Your task to perform on an android device: uninstall "Airtel Thanks" Image 0: 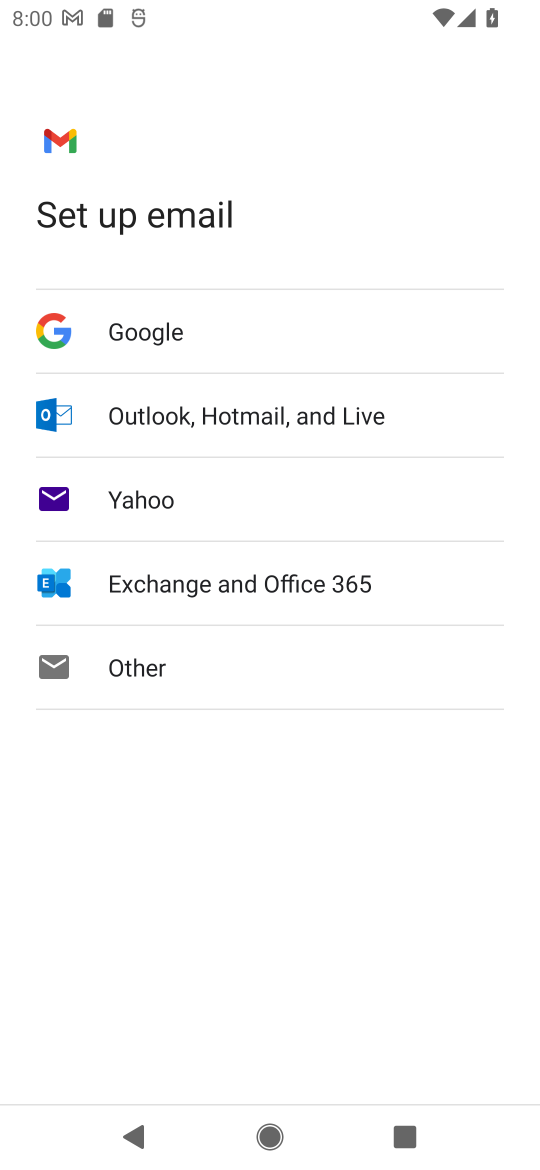
Step 0: press home button
Your task to perform on an android device: uninstall "Airtel Thanks" Image 1: 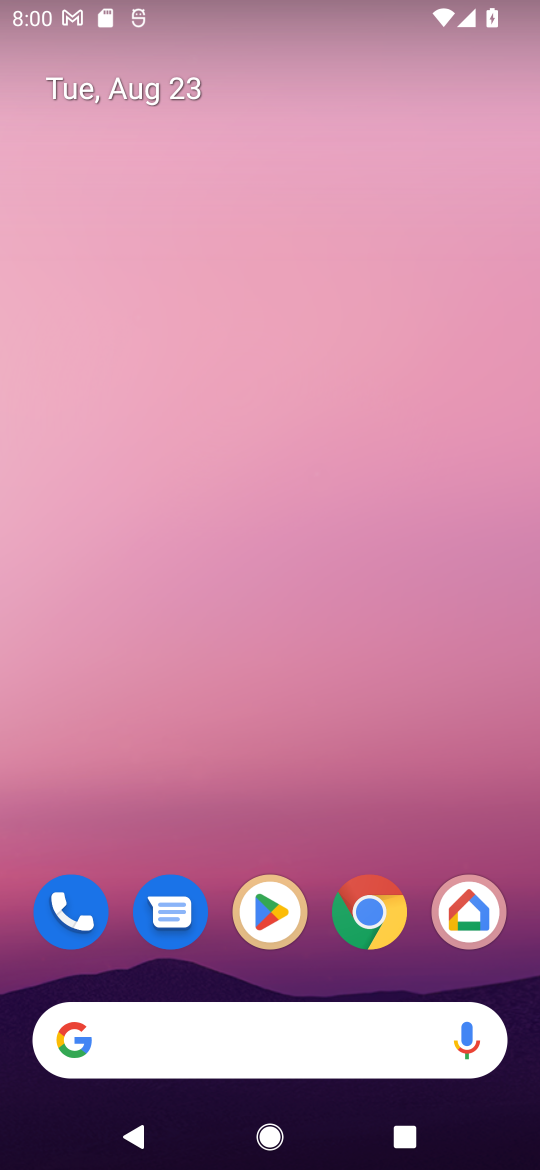
Step 1: click (265, 914)
Your task to perform on an android device: uninstall "Airtel Thanks" Image 2: 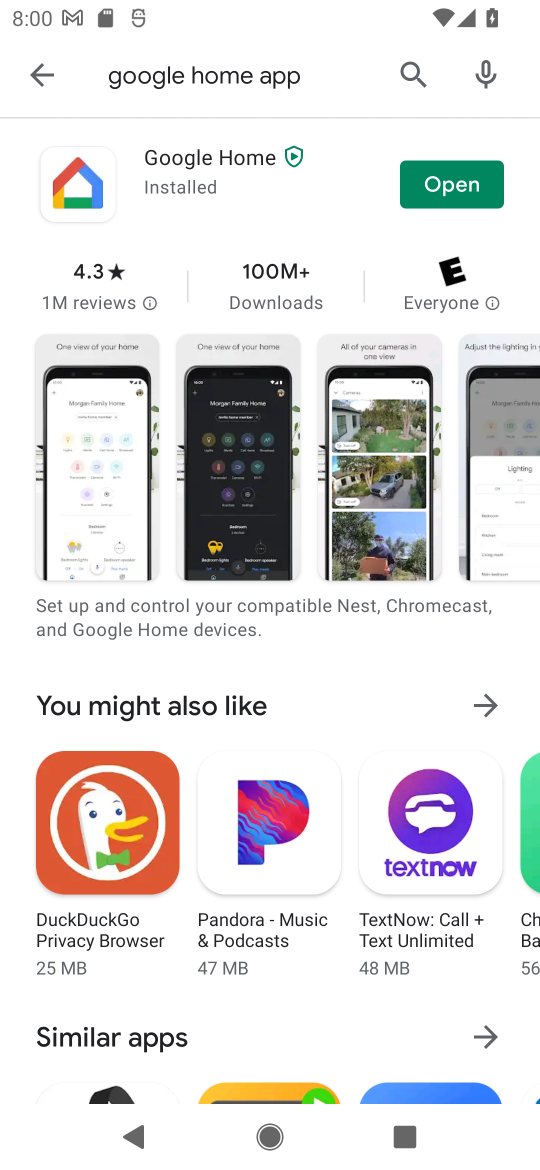
Step 2: click (412, 69)
Your task to perform on an android device: uninstall "Airtel Thanks" Image 3: 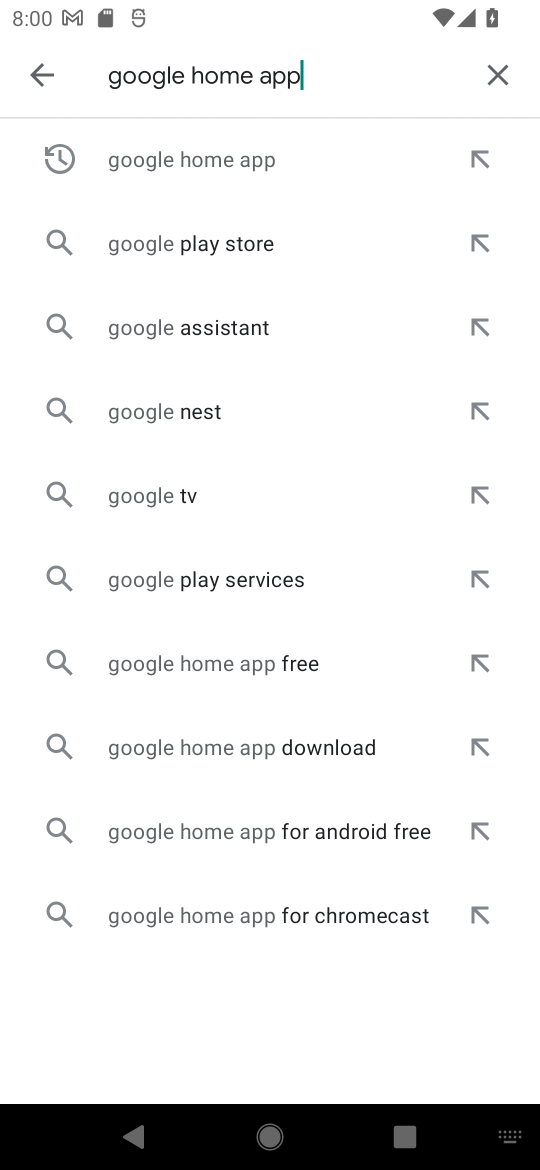
Step 3: click (496, 62)
Your task to perform on an android device: uninstall "Airtel Thanks" Image 4: 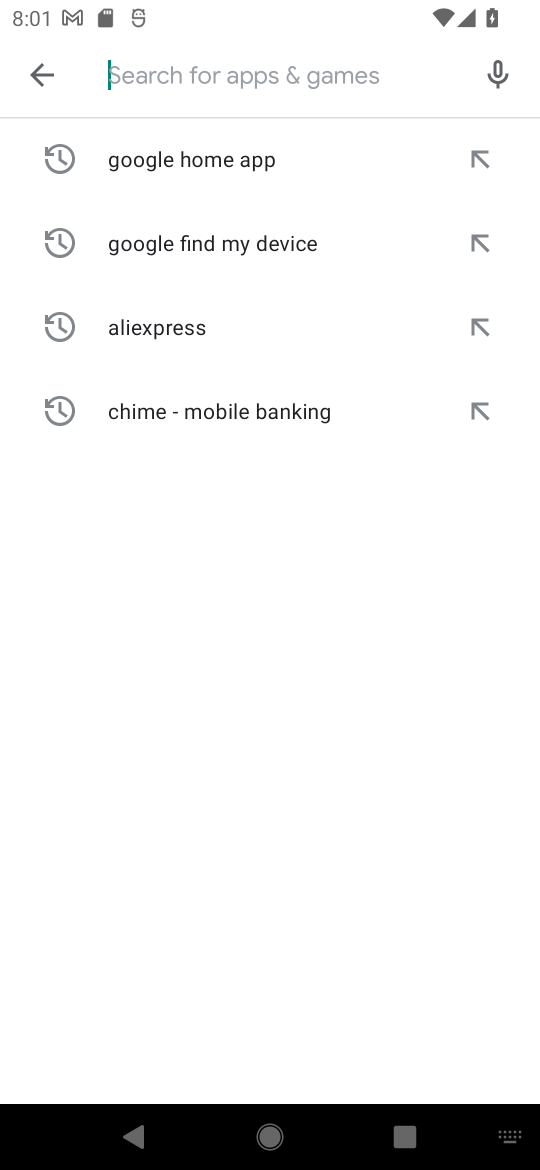
Step 4: type "Airtel Thanks"
Your task to perform on an android device: uninstall "Airtel Thanks" Image 5: 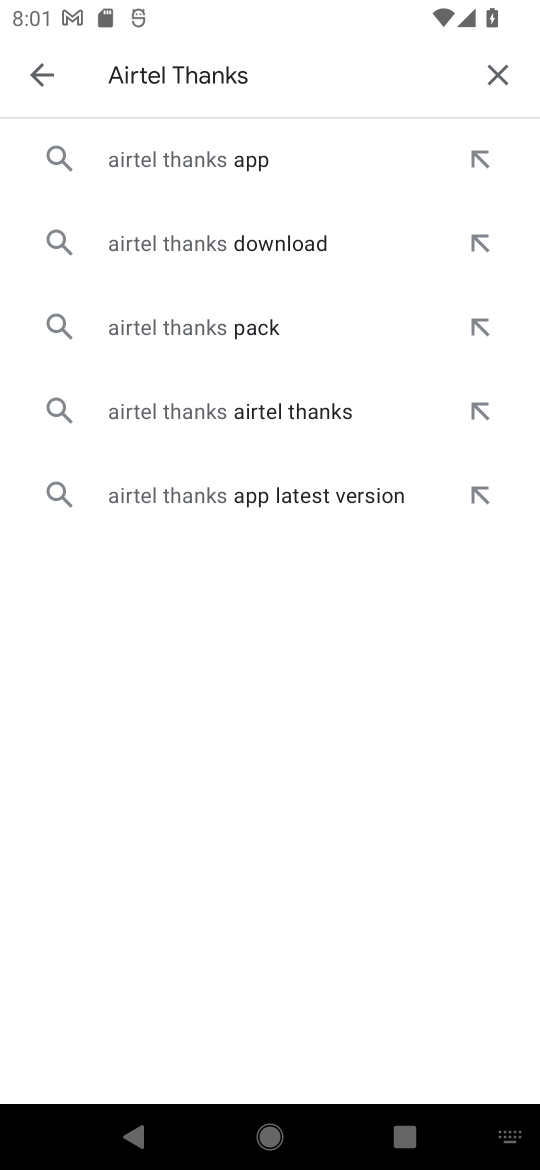
Step 5: click (174, 156)
Your task to perform on an android device: uninstall "Airtel Thanks" Image 6: 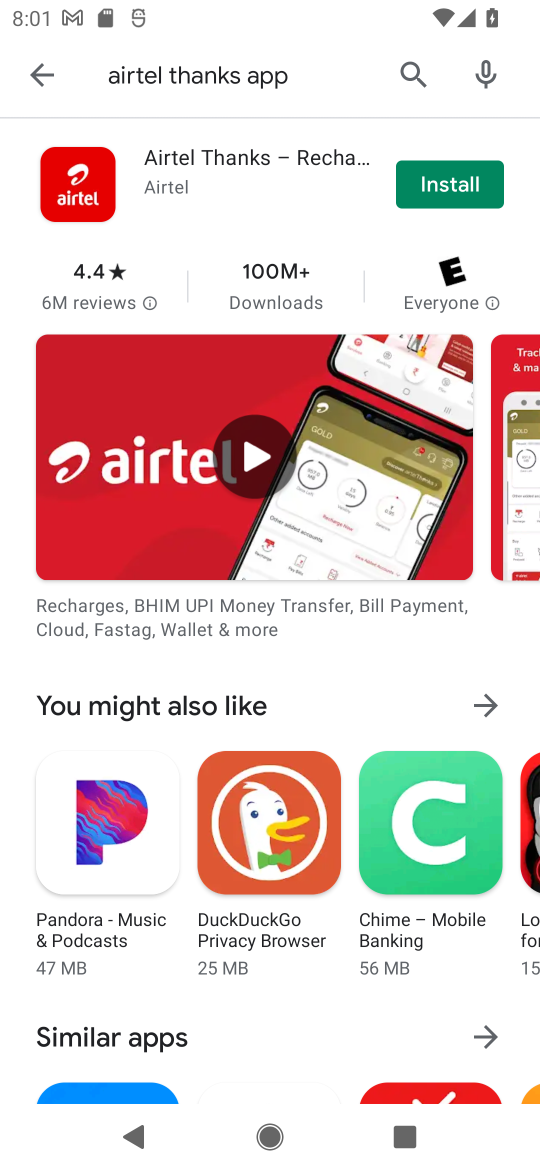
Step 6: click (206, 161)
Your task to perform on an android device: uninstall "Airtel Thanks" Image 7: 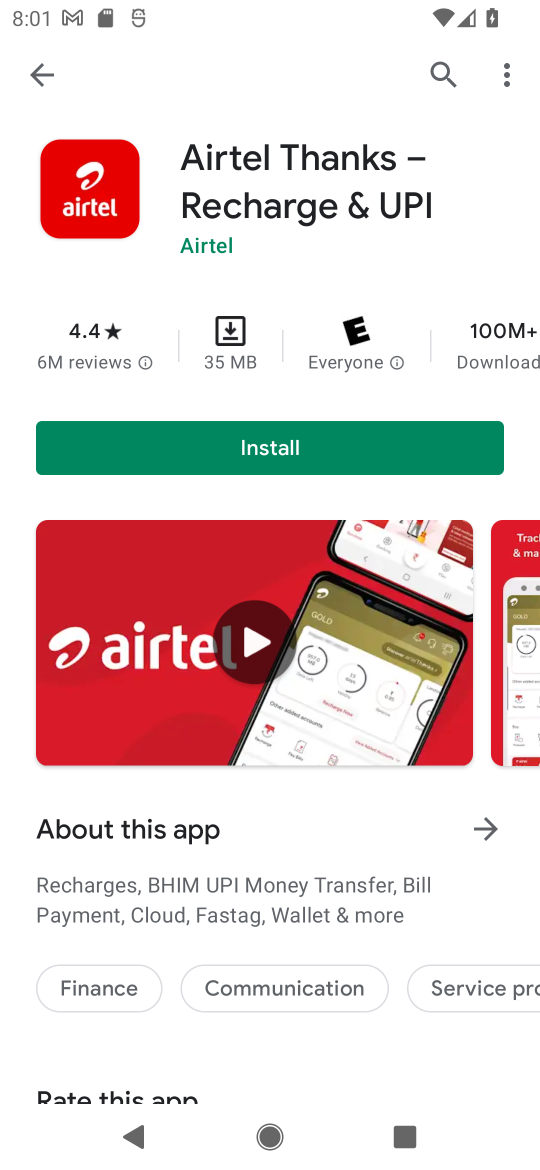
Step 7: task complete